Your task to perform on an android device: open a new tab in the chrome app Image 0: 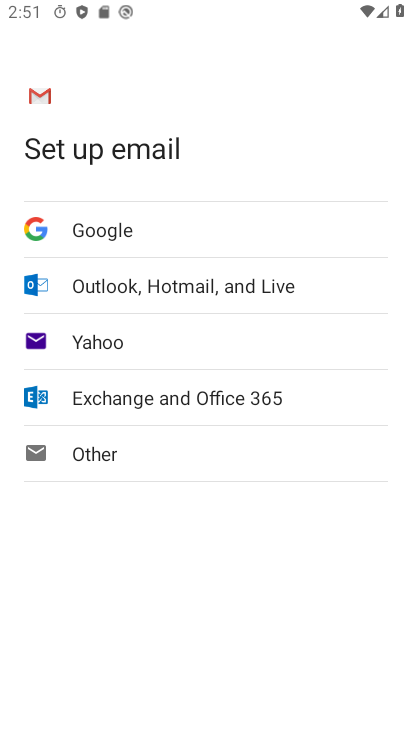
Step 0: press home button
Your task to perform on an android device: open a new tab in the chrome app Image 1: 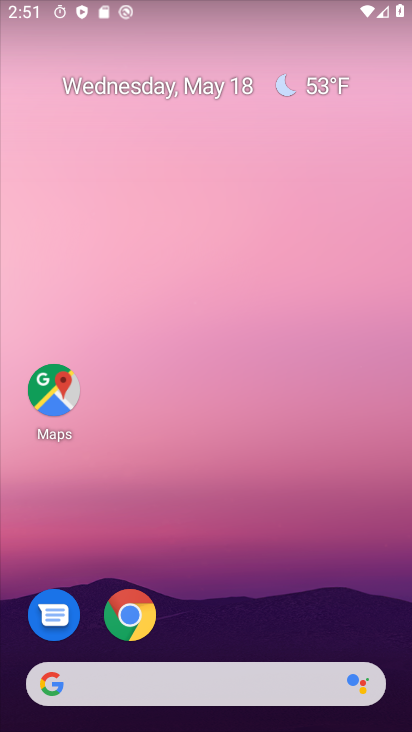
Step 1: click (131, 620)
Your task to perform on an android device: open a new tab in the chrome app Image 2: 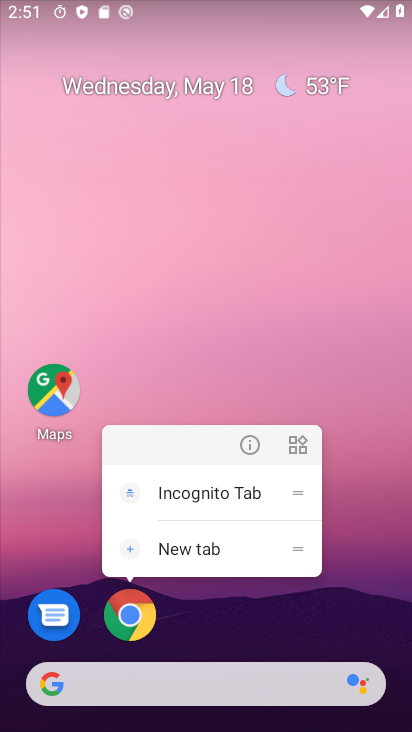
Step 2: click (129, 623)
Your task to perform on an android device: open a new tab in the chrome app Image 3: 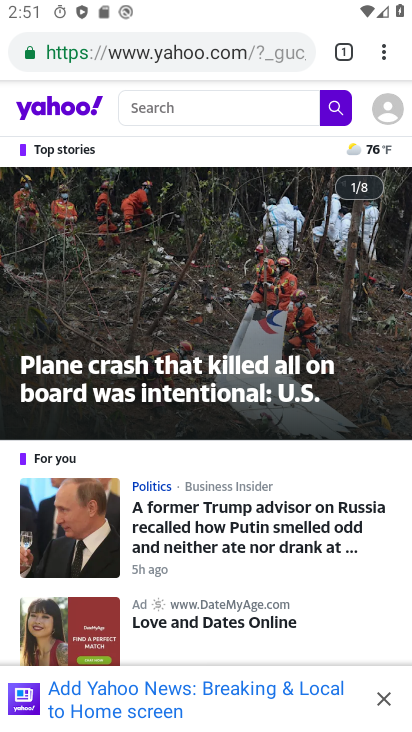
Step 3: task complete